Your task to perform on an android device: Open my contact list Image 0: 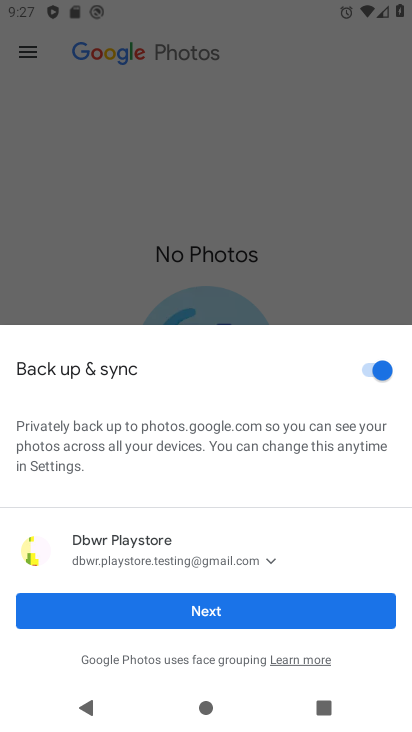
Step 0: press home button
Your task to perform on an android device: Open my contact list Image 1: 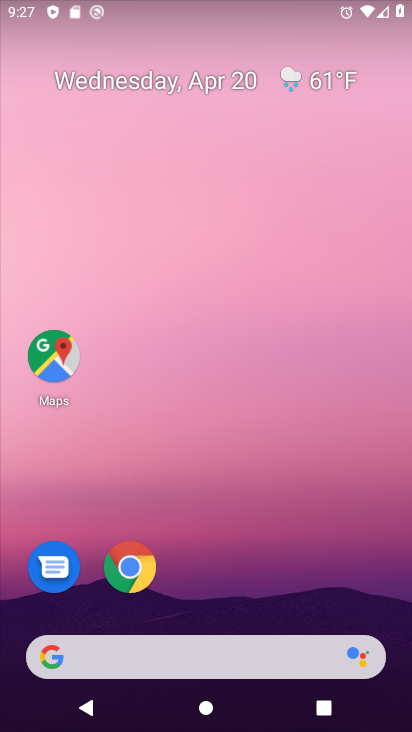
Step 1: press home button
Your task to perform on an android device: Open my contact list Image 2: 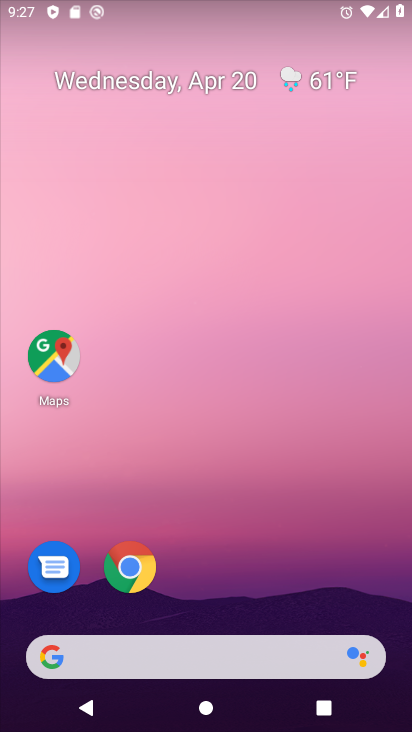
Step 2: drag from (215, 592) to (199, 206)
Your task to perform on an android device: Open my contact list Image 3: 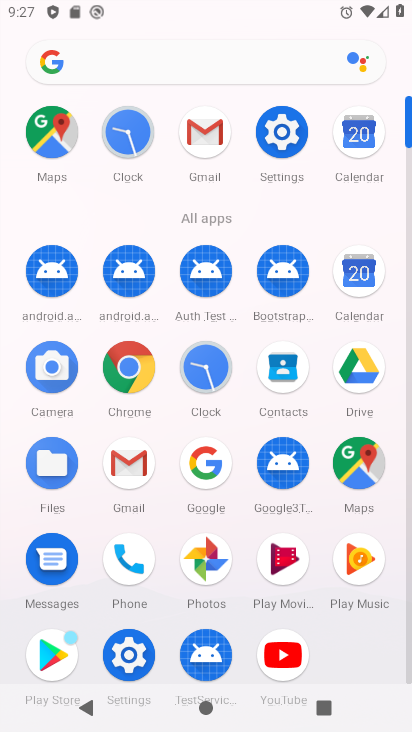
Step 3: click (283, 363)
Your task to perform on an android device: Open my contact list Image 4: 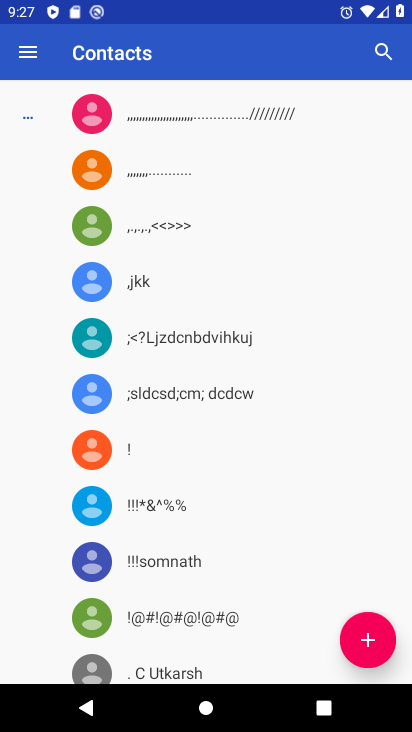
Step 4: task complete